Your task to perform on an android device: Go to battery settings Image 0: 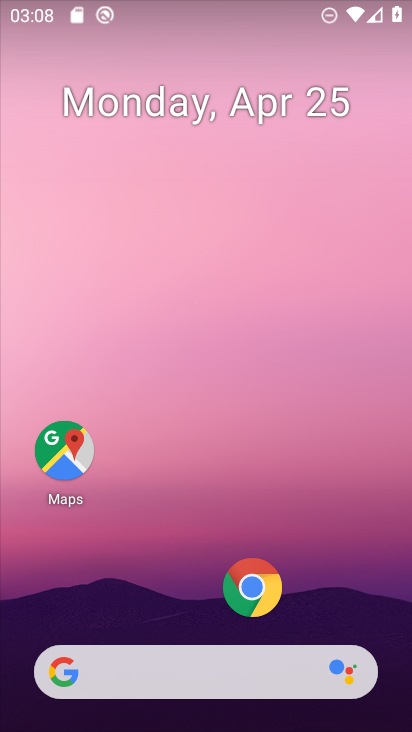
Step 0: drag from (195, 619) to (277, 67)
Your task to perform on an android device: Go to battery settings Image 1: 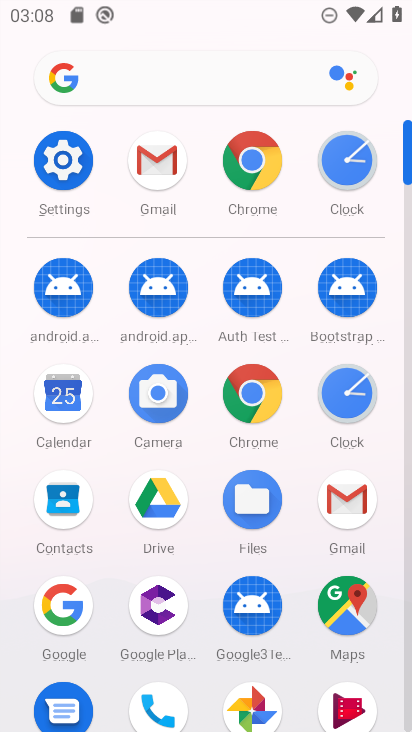
Step 1: click (65, 157)
Your task to perform on an android device: Go to battery settings Image 2: 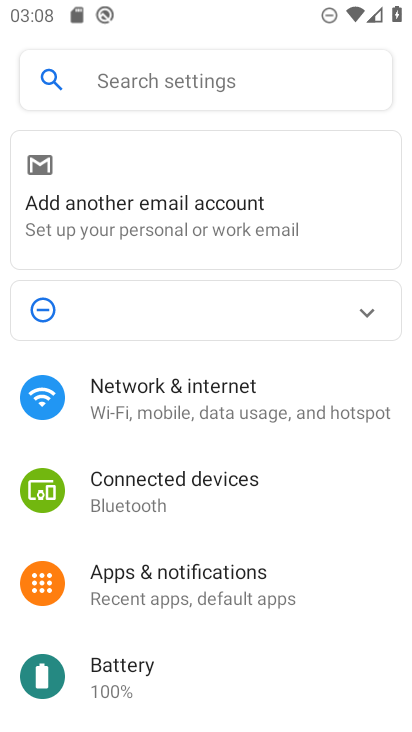
Step 2: click (177, 671)
Your task to perform on an android device: Go to battery settings Image 3: 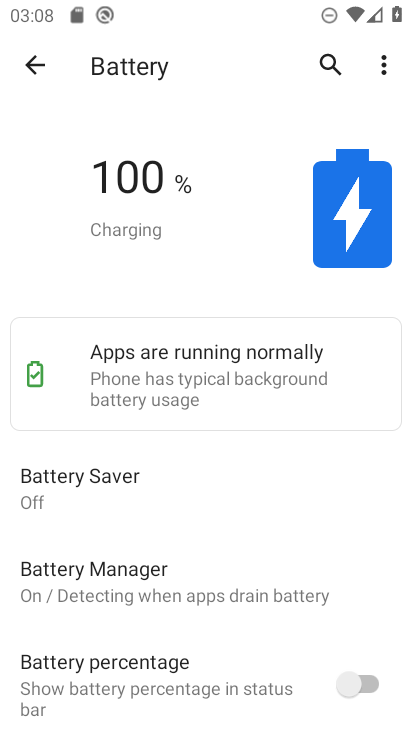
Step 3: task complete